Your task to perform on an android device: What's the weather going to be tomorrow? Image 0: 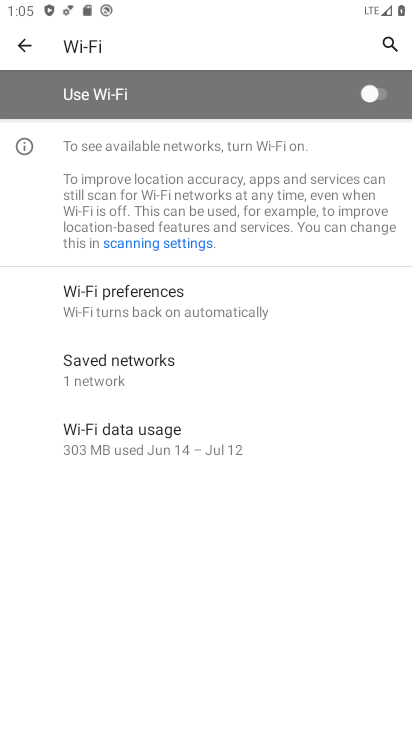
Step 0: press home button
Your task to perform on an android device: What's the weather going to be tomorrow? Image 1: 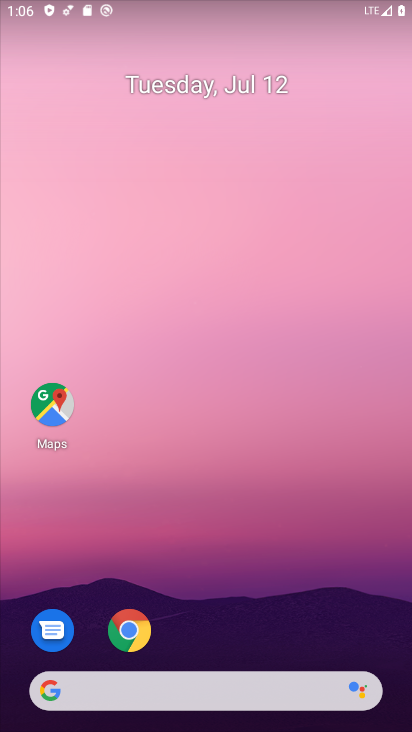
Step 1: task complete